Your task to perform on an android device: Open the map Image 0: 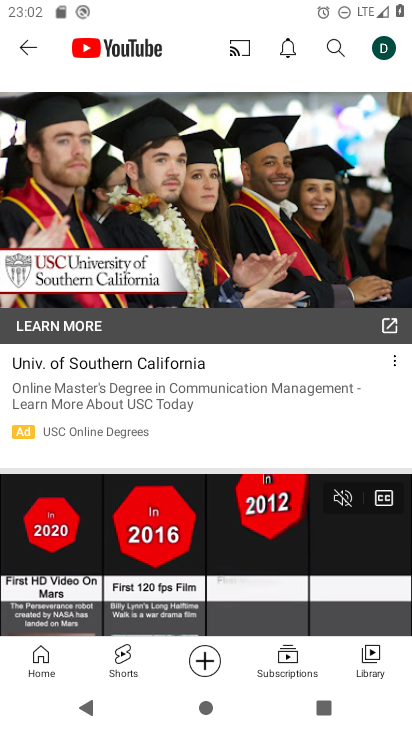
Step 0: press home button
Your task to perform on an android device: Open the map Image 1: 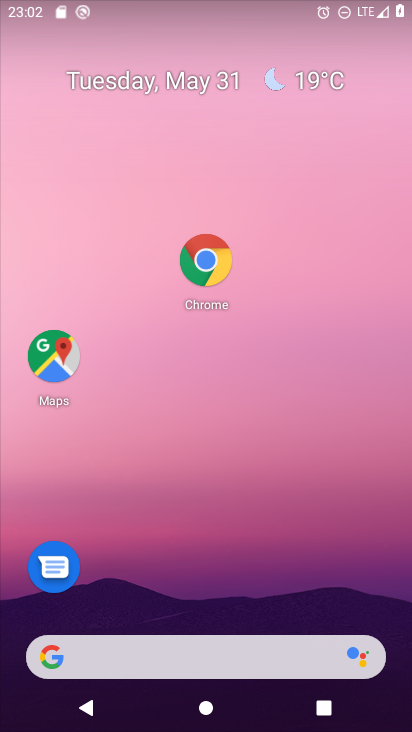
Step 1: click (40, 372)
Your task to perform on an android device: Open the map Image 2: 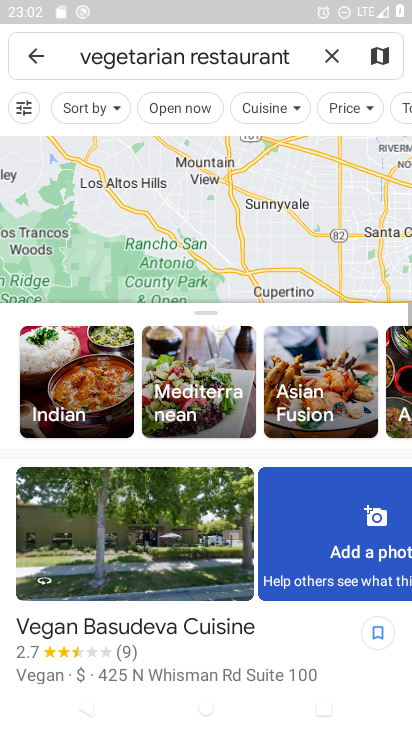
Step 2: click (332, 49)
Your task to perform on an android device: Open the map Image 3: 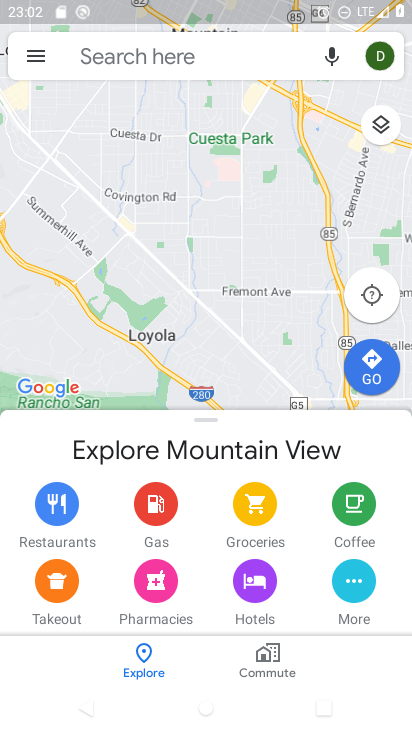
Step 3: task complete